Your task to perform on an android device: Add razer huntsman to the cart on newegg Image 0: 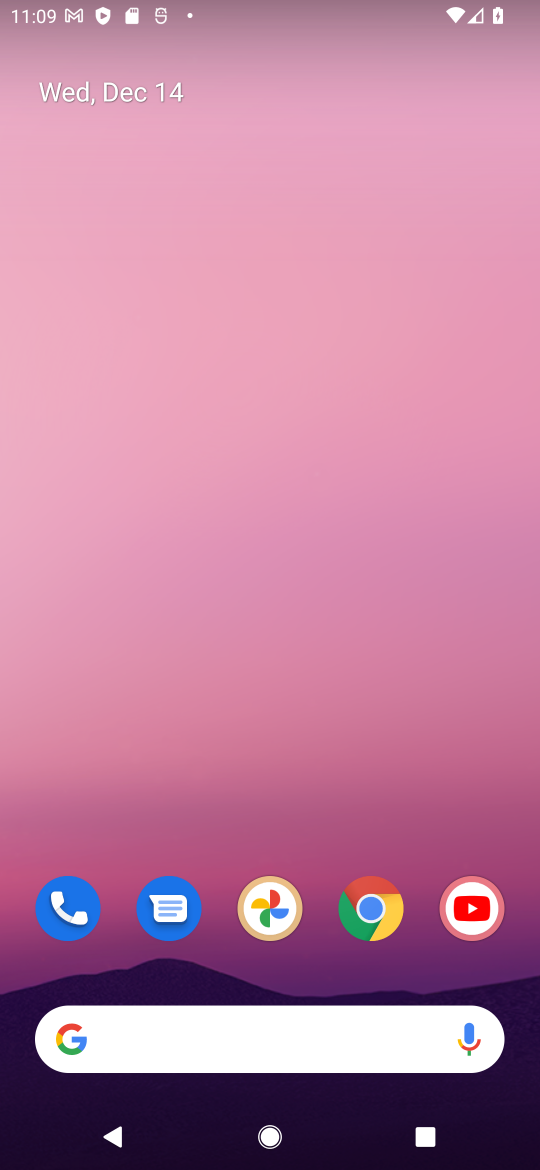
Step 0: click (363, 919)
Your task to perform on an android device: Add razer huntsman to the cart on newegg Image 1: 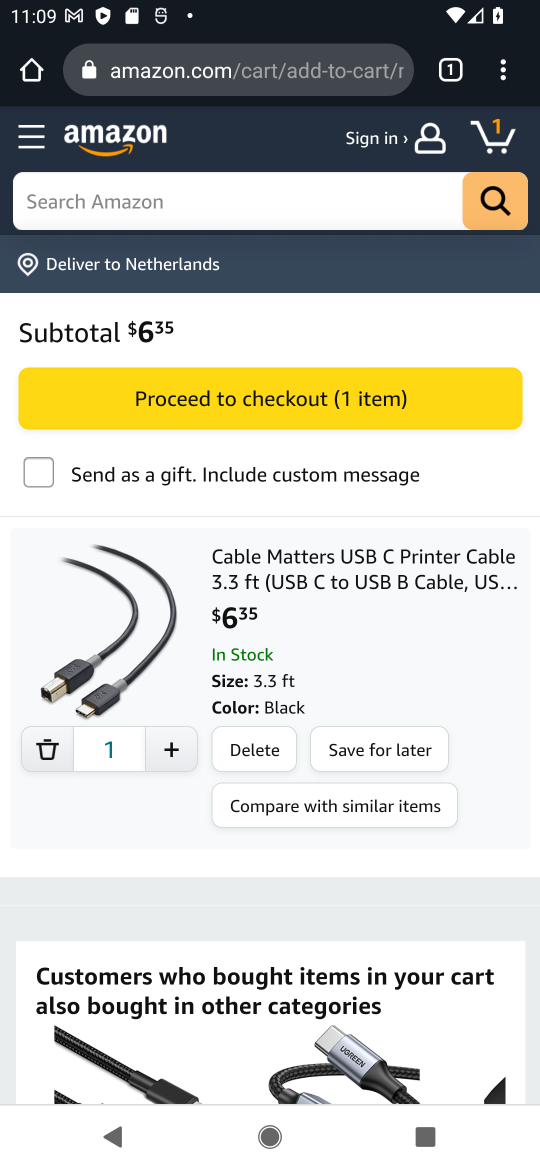
Step 1: click (217, 84)
Your task to perform on an android device: Add razer huntsman to the cart on newegg Image 2: 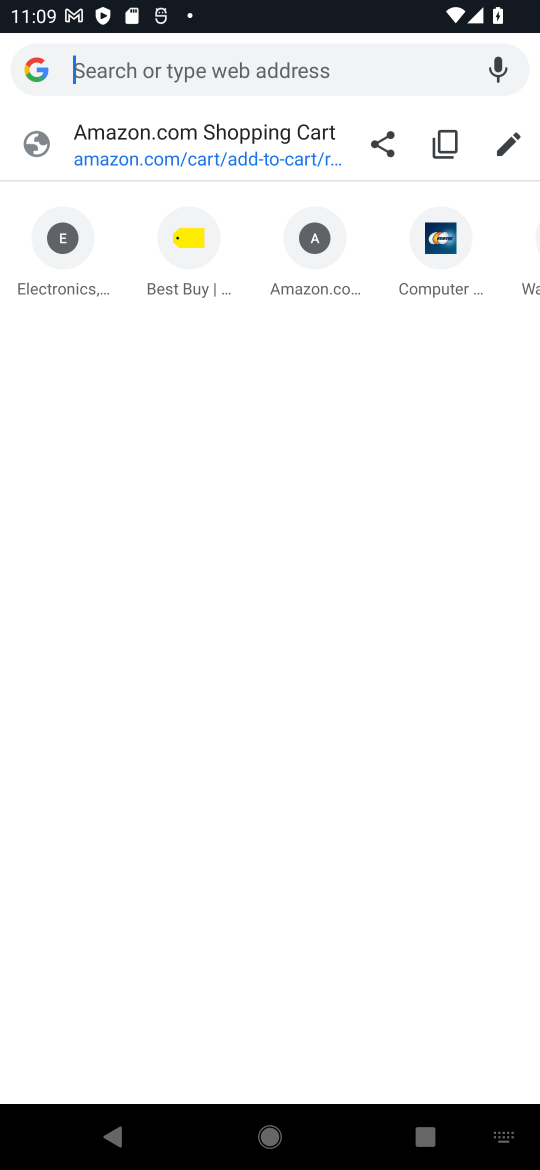
Step 2: click (445, 277)
Your task to perform on an android device: Add razer huntsman to the cart on newegg Image 3: 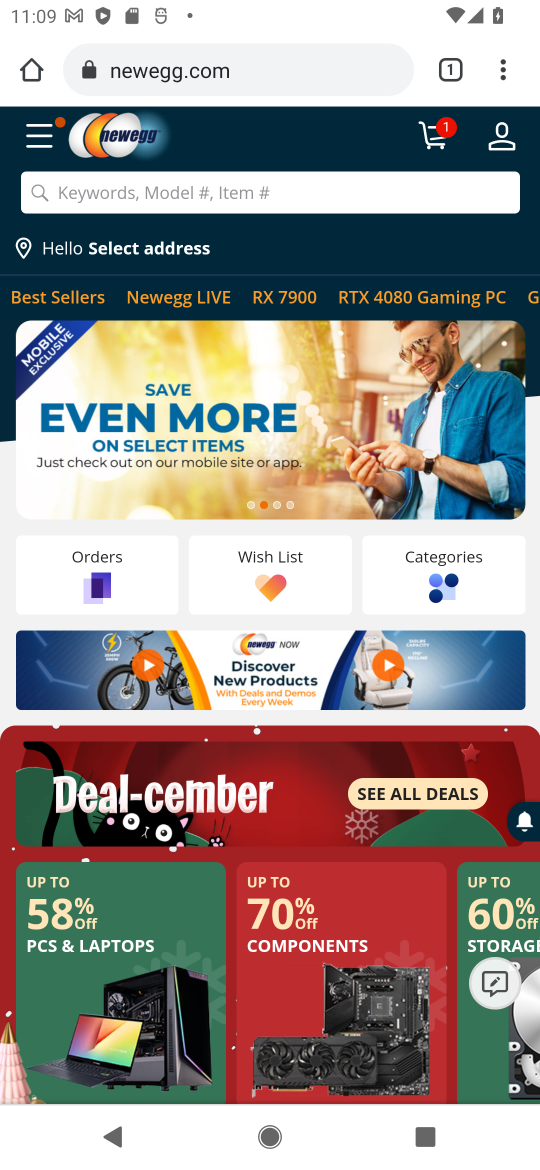
Step 3: click (151, 206)
Your task to perform on an android device: Add razer huntsman to the cart on newegg Image 4: 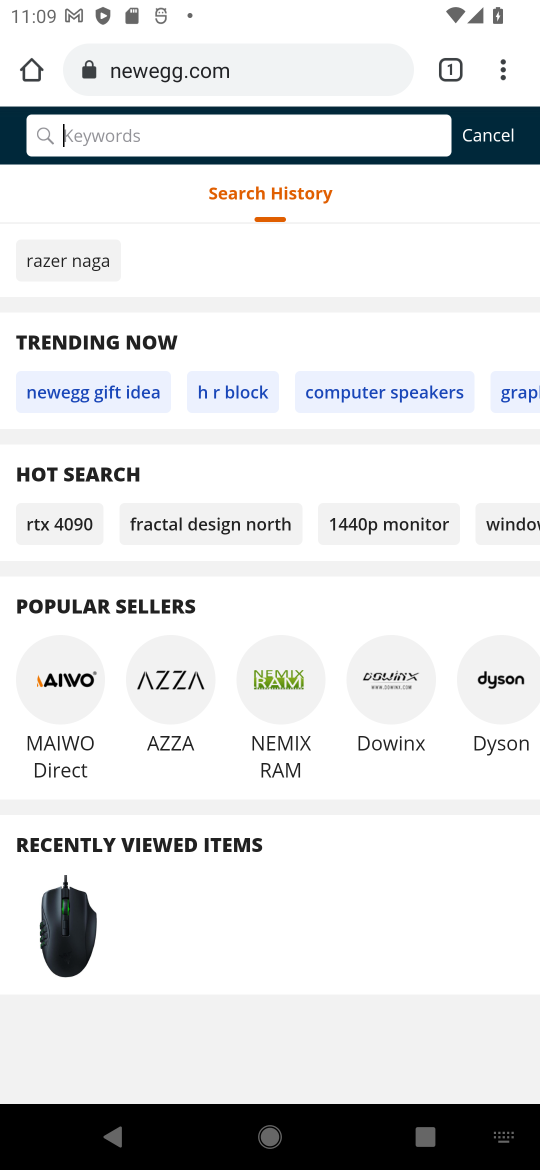
Step 4: type "razer huntsman"
Your task to perform on an android device: Add razer huntsman to the cart on newegg Image 5: 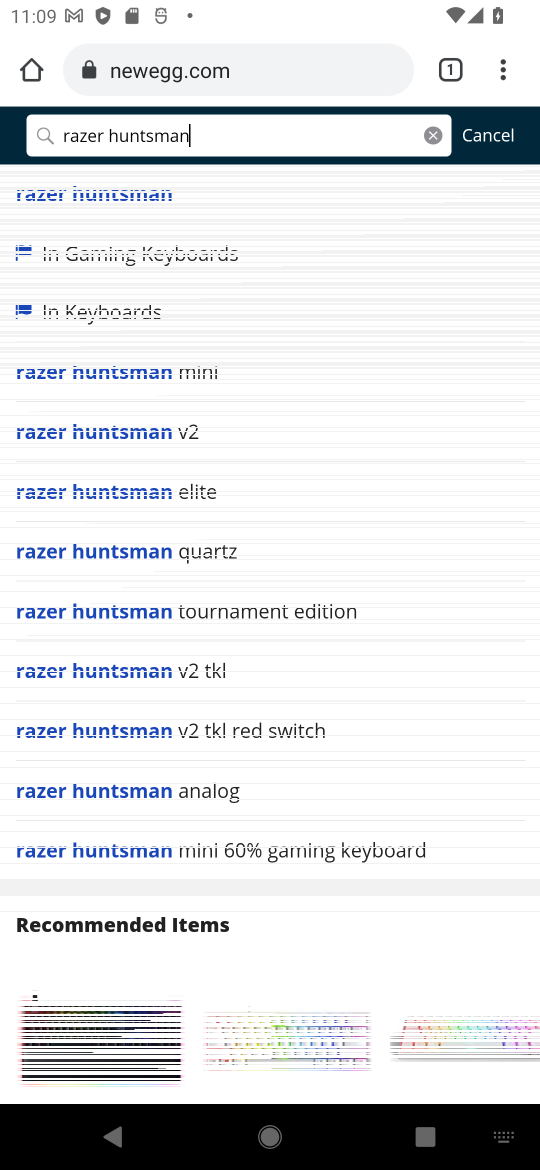
Step 5: click (120, 204)
Your task to perform on an android device: Add razer huntsman to the cart on newegg Image 6: 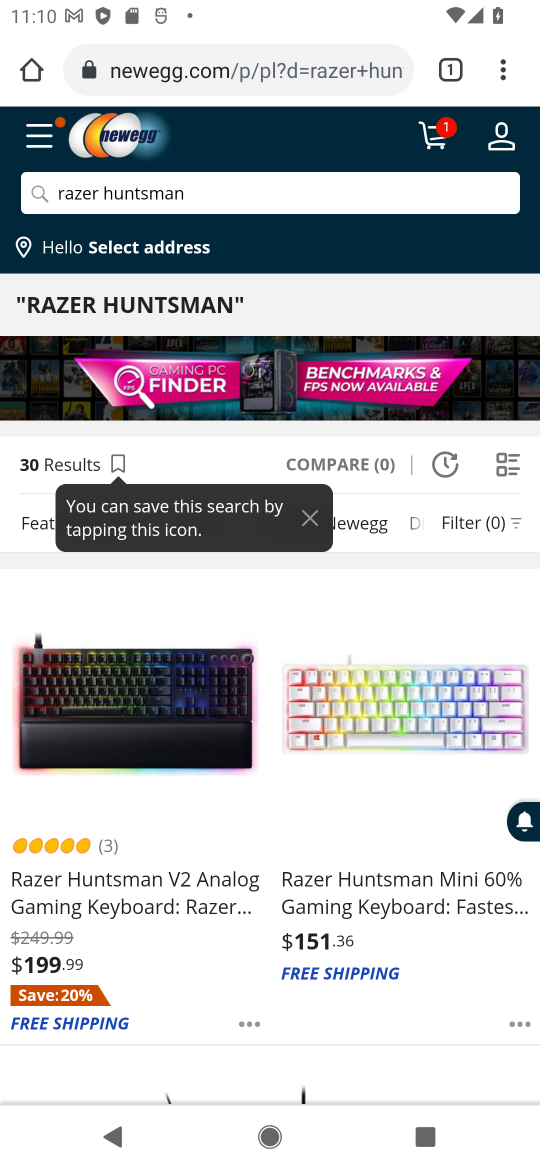
Step 6: drag from (197, 704) to (197, 430)
Your task to perform on an android device: Add razer huntsman to the cart on newegg Image 7: 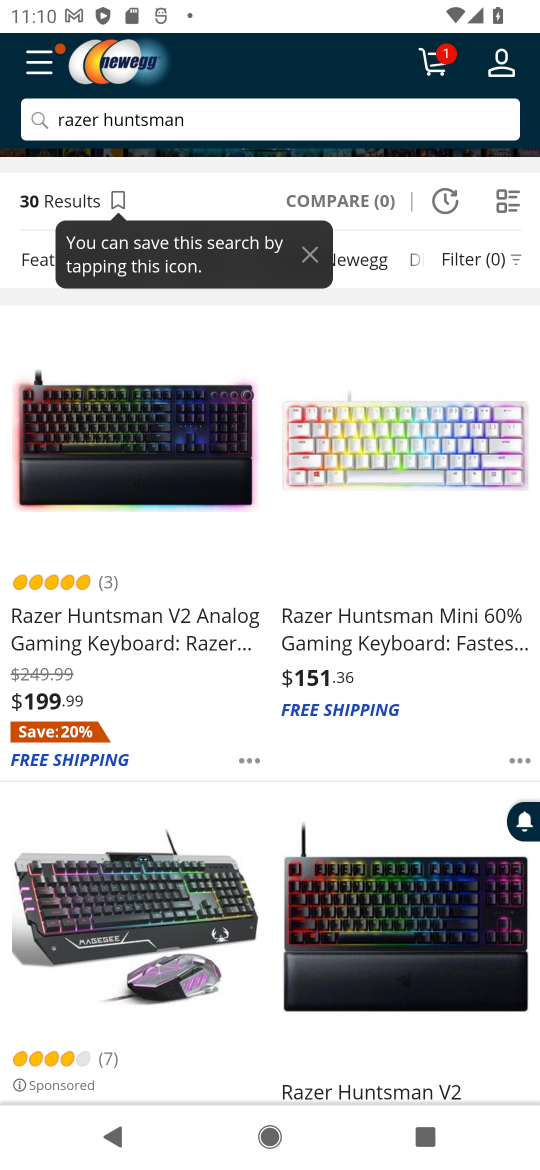
Step 7: click (93, 626)
Your task to perform on an android device: Add razer huntsman to the cart on newegg Image 8: 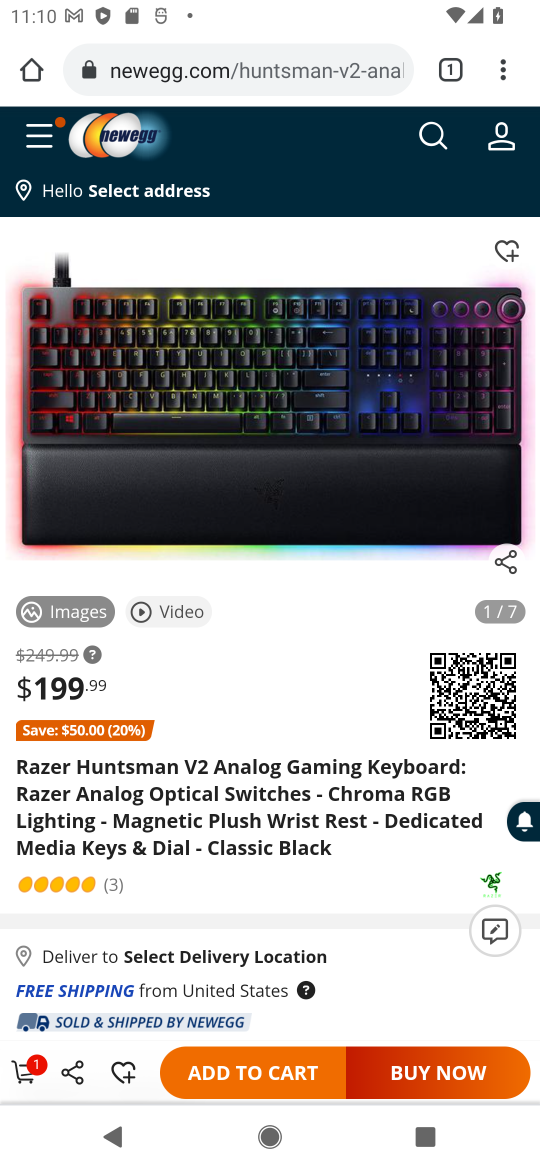
Step 8: click (220, 1065)
Your task to perform on an android device: Add razer huntsman to the cart on newegg Image 9: 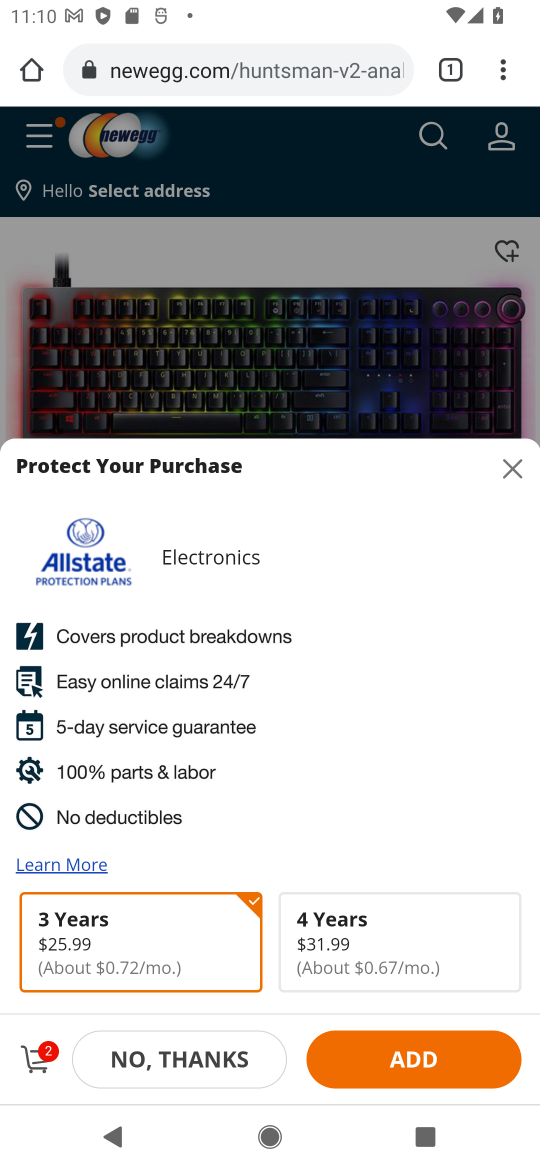
Step 9: task complete